Your task to perform on an android device: open app "Life360: Find Family & Friends" (install if not already installed) Image 0: 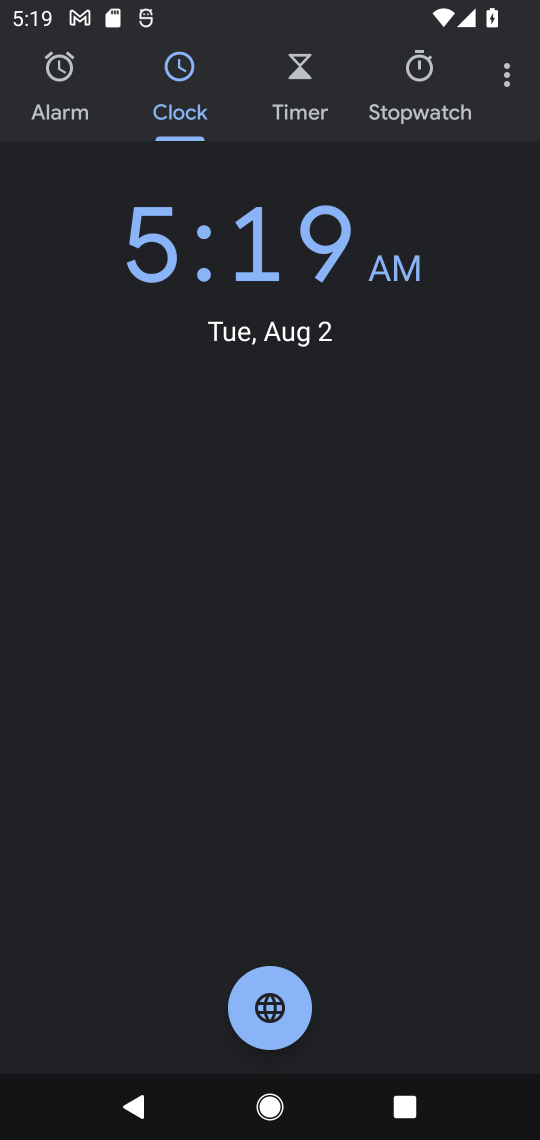
Step 0: press home button
Your task to perform on an android device: open app "Life360: Find Family & Friends" (install if not already installed) Image 1: 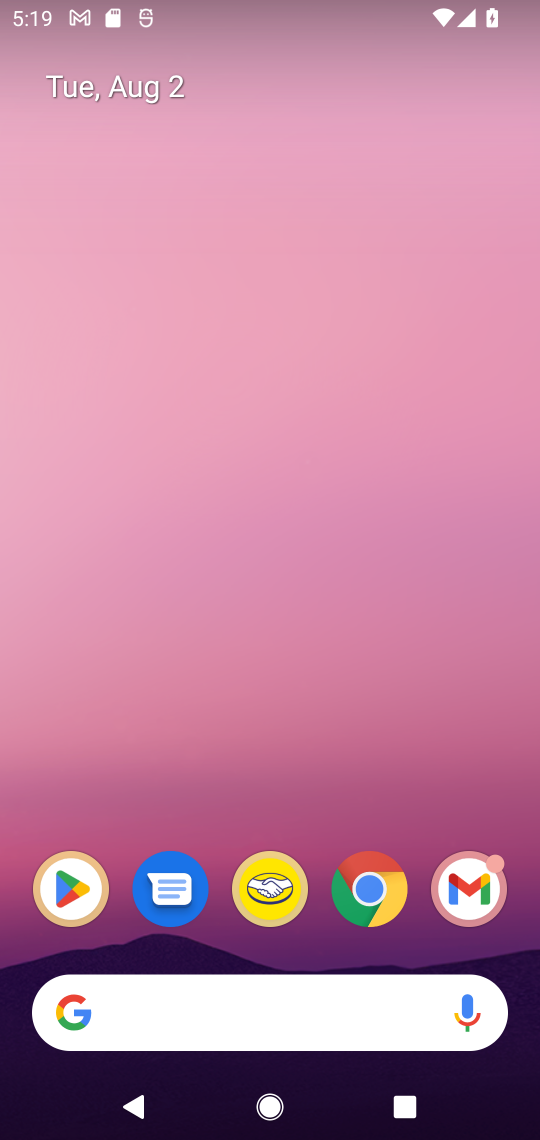
Step 1: drag from (355, 775) to (407, 134)
Your task to perform on an android device: open app "Life360: Find Family & Friends" (install if not already installed) Image 2: 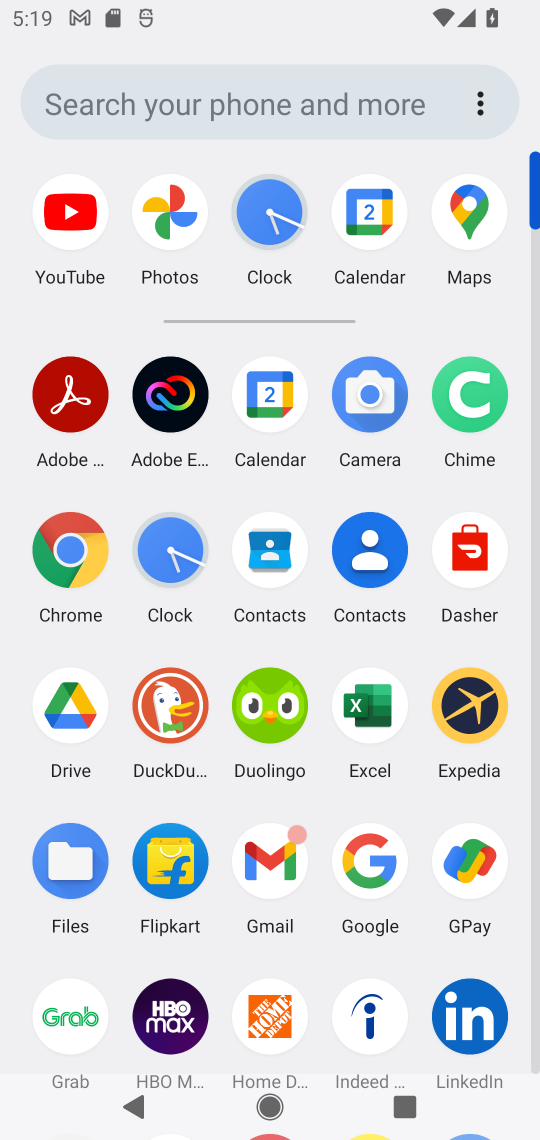
Step 2: drag from (407, 944) to (410, 540)
Your task to perform on an android device: open app "Life360: Find Family & Friends" (install if not already installed) Image 3: 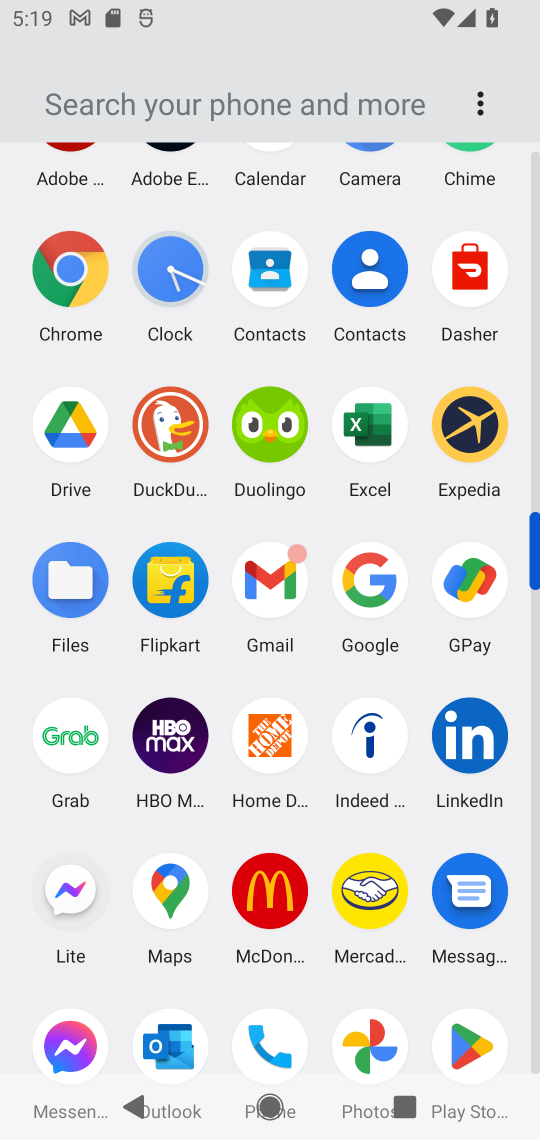
Step 3: drag from (314, 992) to (310, 730)
Your task to perform on an android device: open app "Life360: Find Family & Friends" (install if not already installed) Image 4: 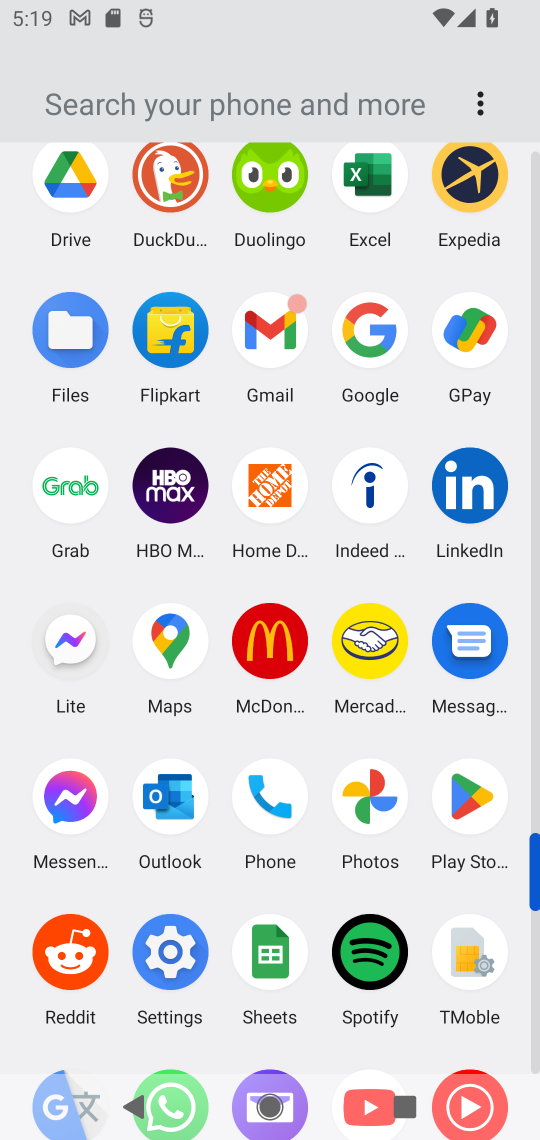
Step 4: click (487, 815)
Your task to perform on an android device: open app "Life360: Find Family & Friends" (install if not already installed) Image 5: 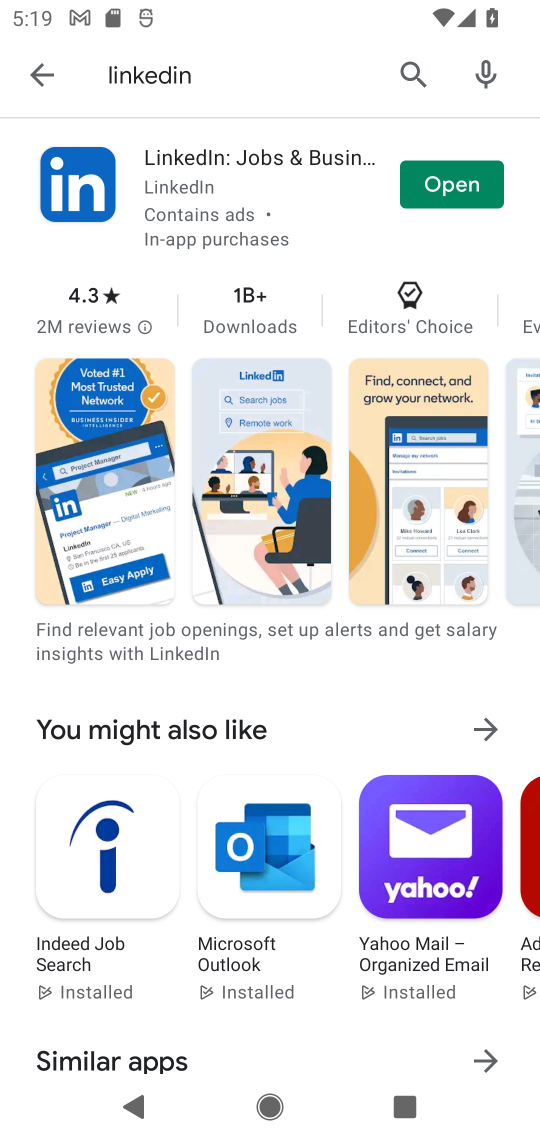
Step 5: click (405, 78)
Your task to perform on an android device: open app "Life360: Find Family & Friends" (install if not already installed) Image 6: 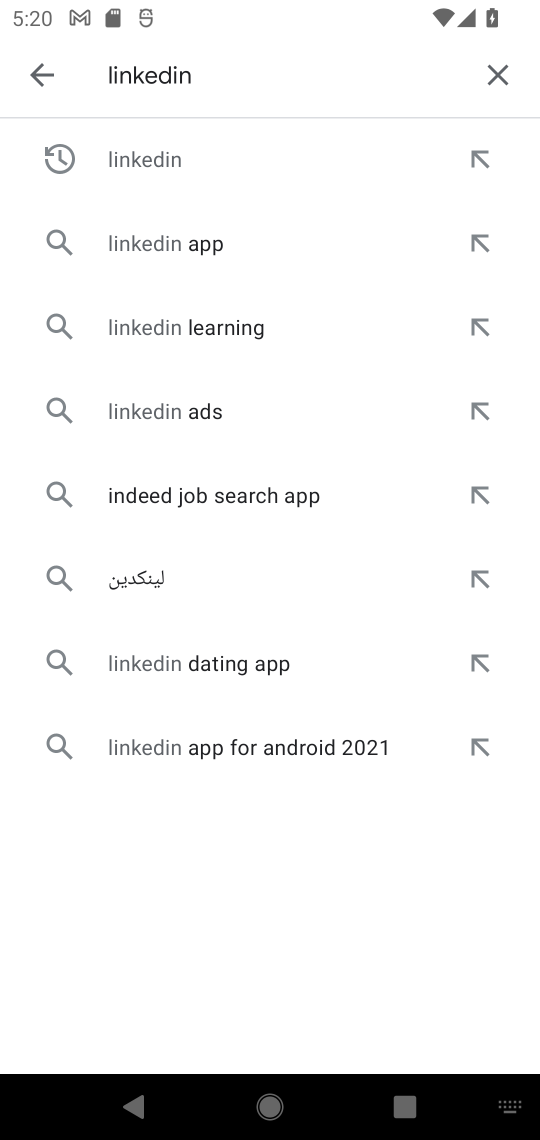
Step 6: click (491, 75)
Your task to perform on an android device: open app "Life360: Find Family & Friends" (install if not already installed) Image 7: 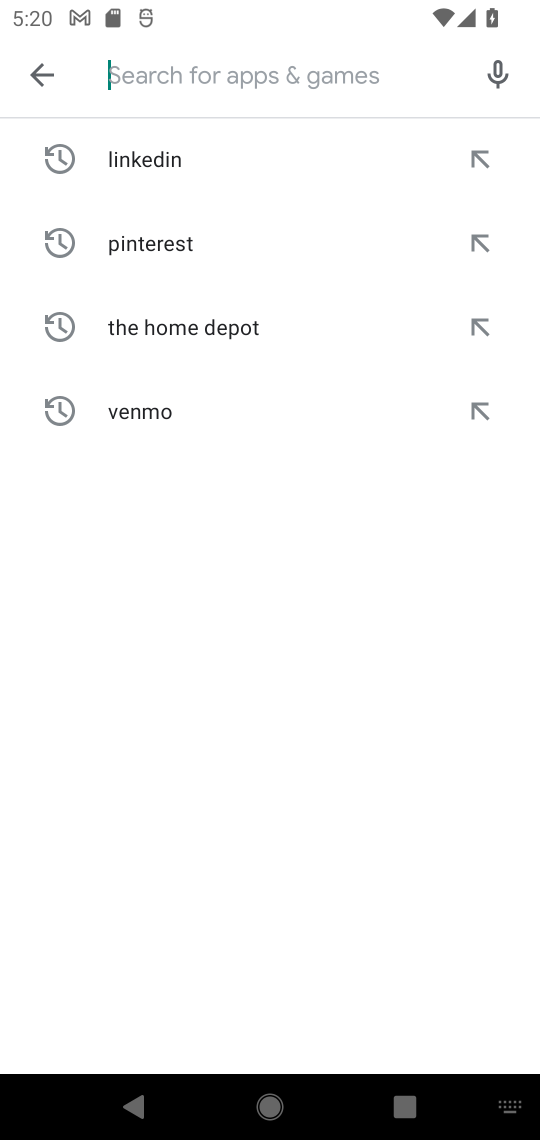
Step 7: type "Life360: Find Family & Friends"
Your task to perform on an android device: open app "Life360: Find Family & Friends" (install if not already installed) Image 8: 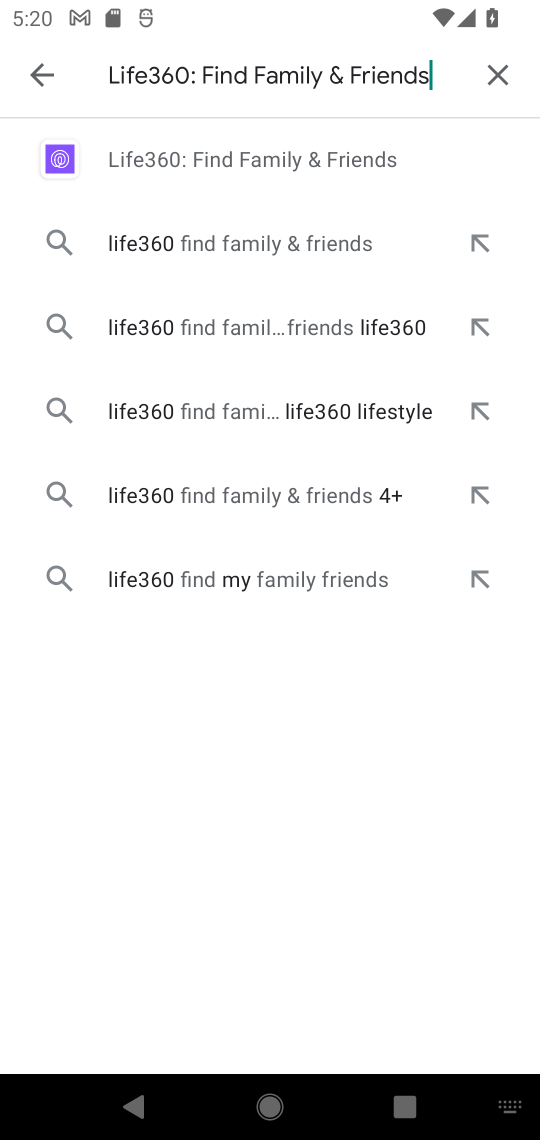
Step 8: click (311, 152)
Your task to perform on an android device: open app "Life360: Find Family & Friends" (install if not already installed) Image 9: 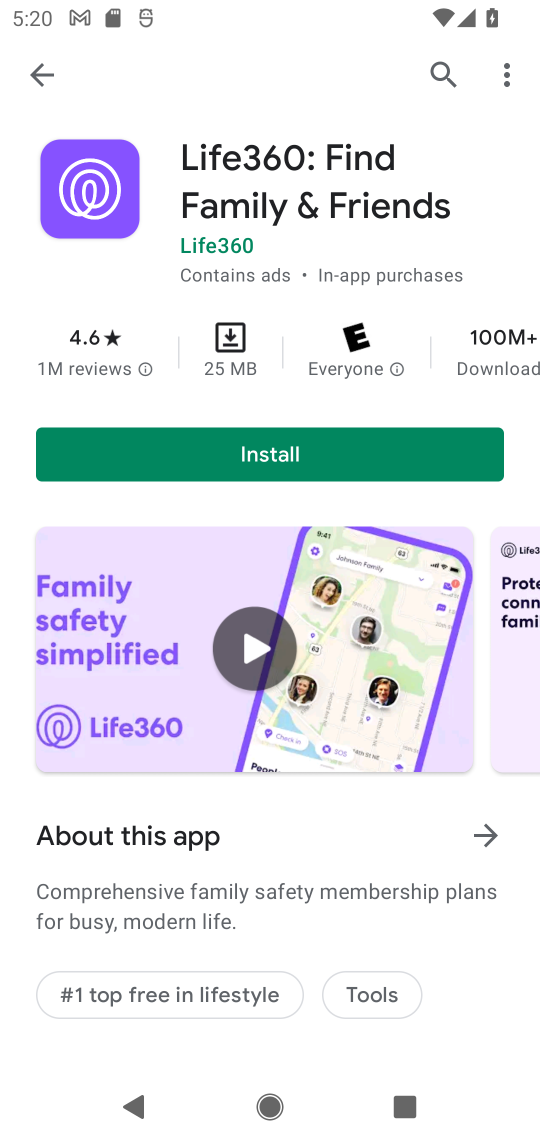
Step 9: click (405, 442)
Your task to perform on an android device: open app "Life360: Find Family & Friends" (install if not already installed) Image 10: 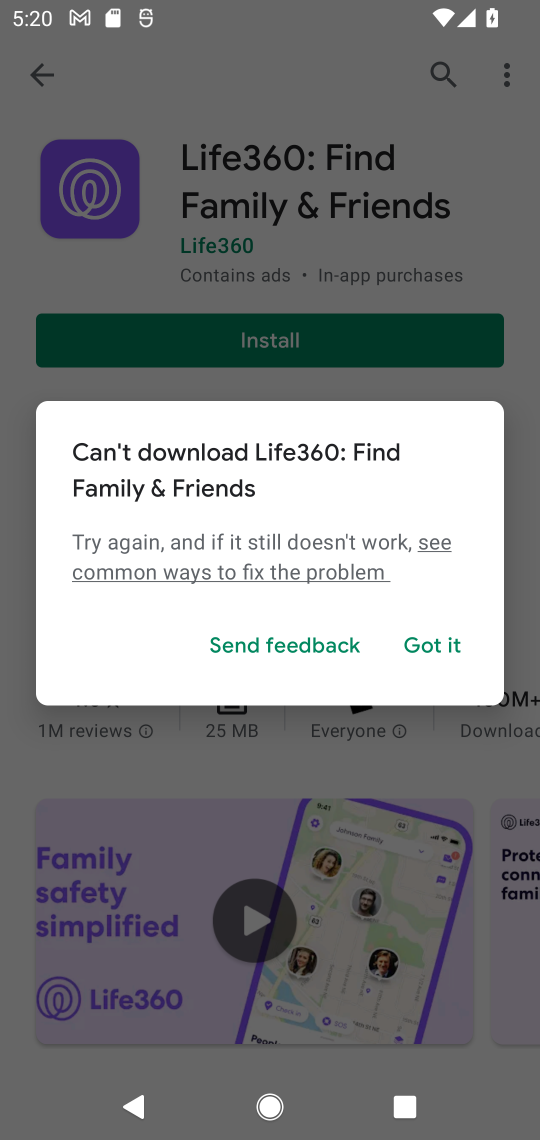
Step 10: click (428, 646)
Your task to perform on an android device: open app "Life360: Find Family & Friends" (install if not already installed) Image 11: 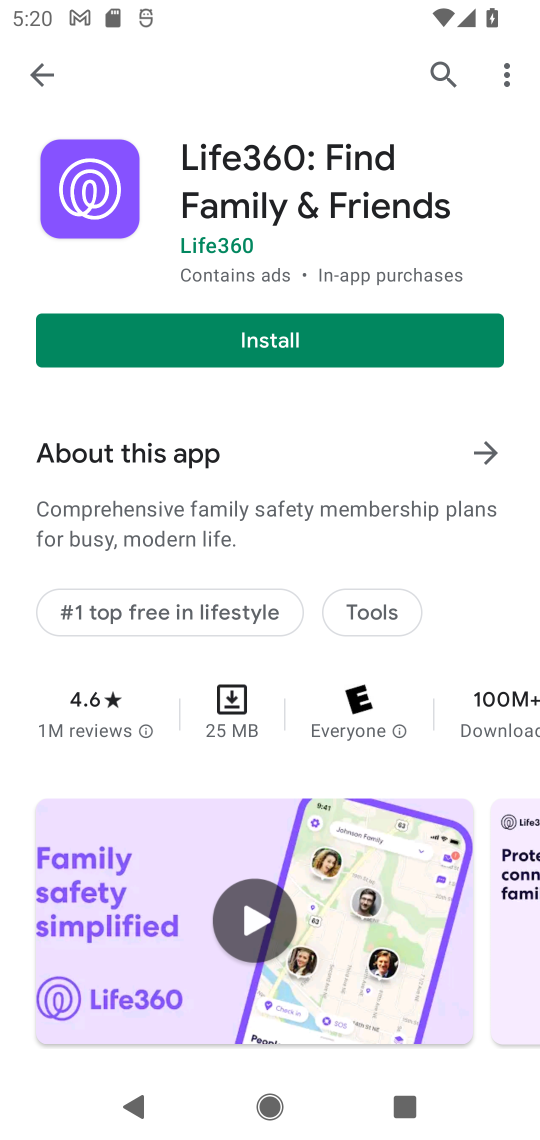
Step 11: click (312, 344)
Your task to perform on an android device: open app "Life360: Find Family & Friends" (install if not already installed) Image 12: 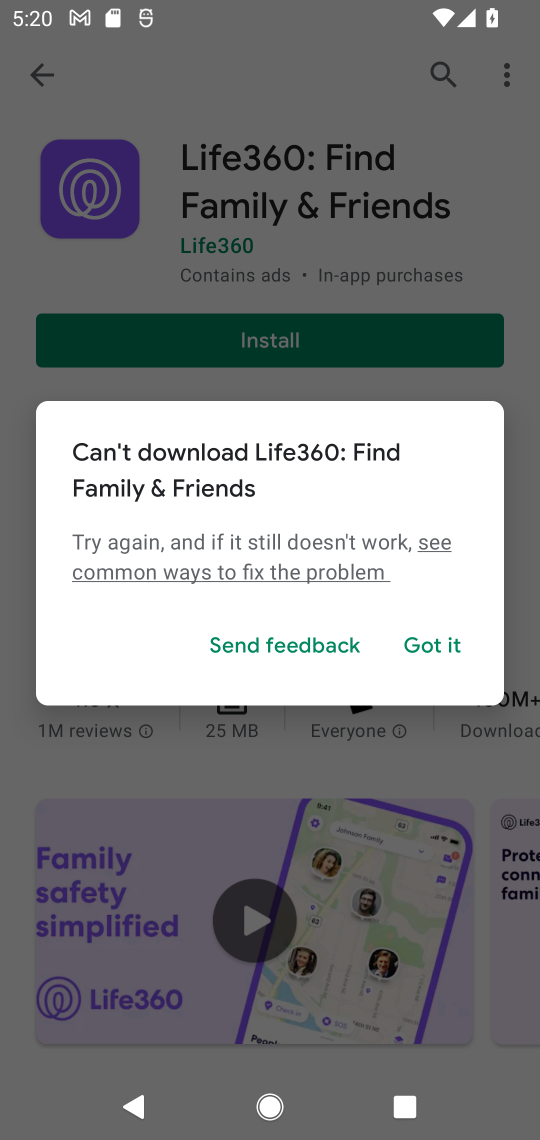
Step 12: task complete